Your task to perform on an android device: change keyboard looks Image 0: 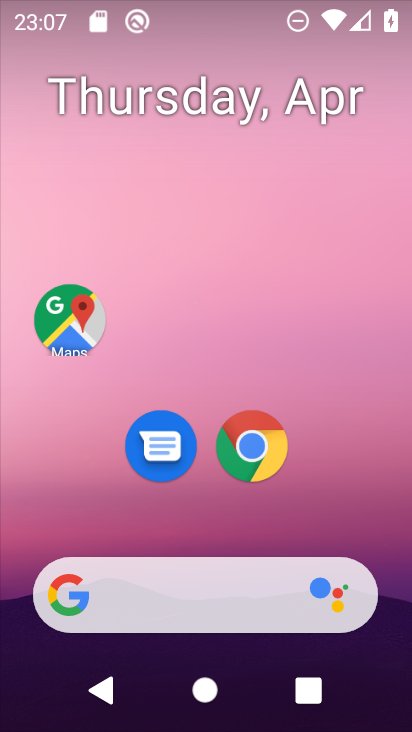
Step 0: drag from (204, 507) to (240, 164)
Your task to perform on an android device: change keyboard looks Image 1: 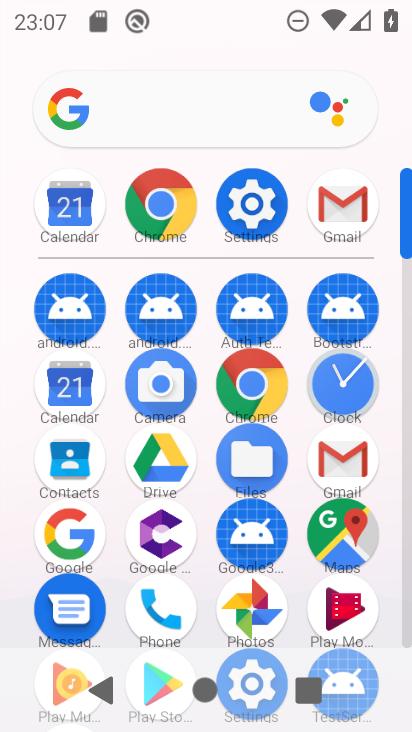
Step 1: click (266, 206)
Your task to perform on an android device: change keyboard looks Image 2: 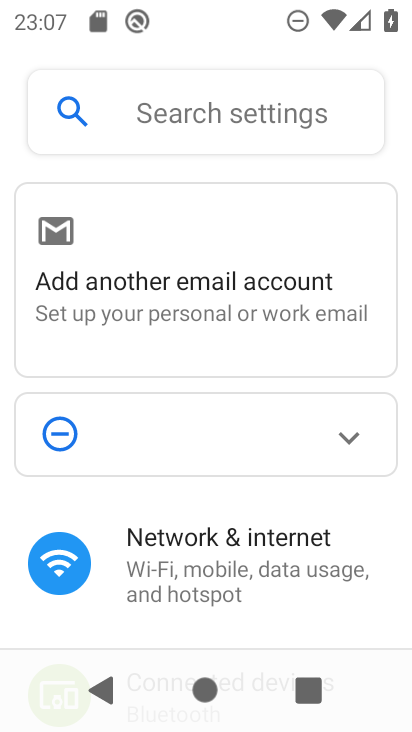
Step 2: drag from (220, 599) to (225, 136)
Your task to perform on an android device: change keyboard looks Image 3: 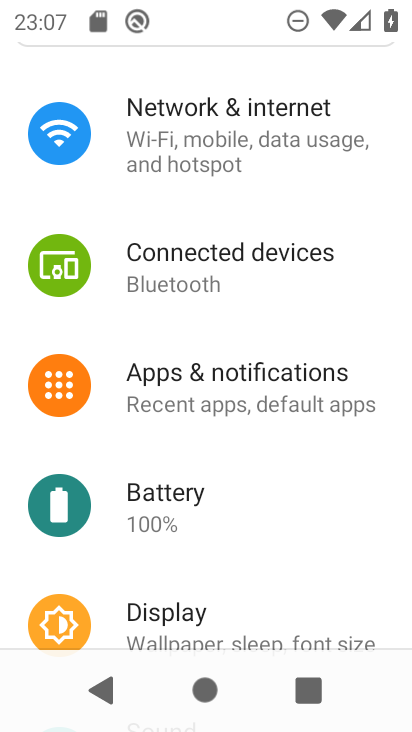
Step 3: drag from (207, 595) to (237, 76)
Your task to perform on an android device: change keyboard looks Image 4: 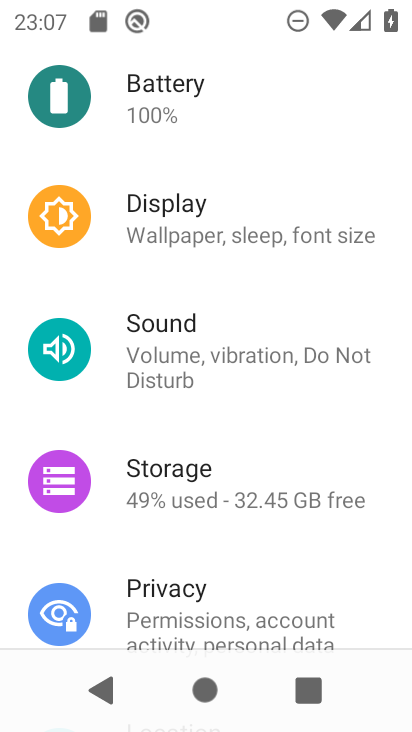
Step 4: drag from (207, 594) to (259, 22)
Your task to perform on an android device: change keyboard looks Image 5: 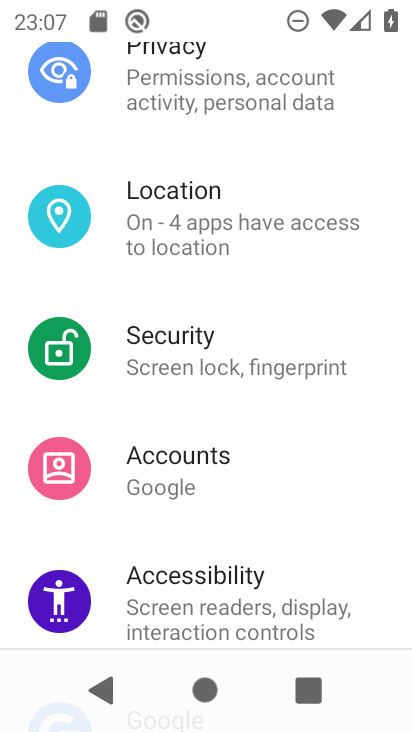
Step 5: drag from (177, 574) to (211, 99)
Your task to perform on an android device: change keyboard looks Image 6: 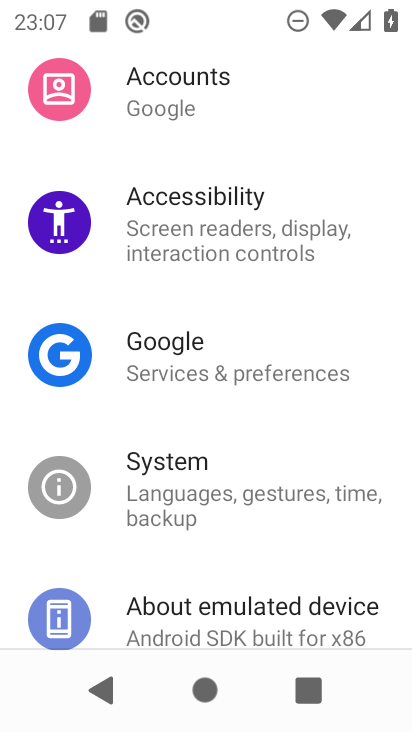
Step 6: drag from (229, 538) to (250, 205)
Your task to perform on an android device: change keyboard looks Image 7: 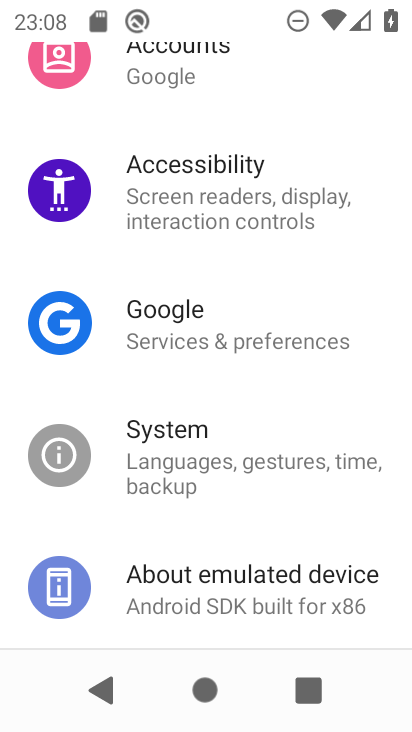
Step 7: click (201, 438)
Your task to perform on an android device: change keyboard looks Image 8: 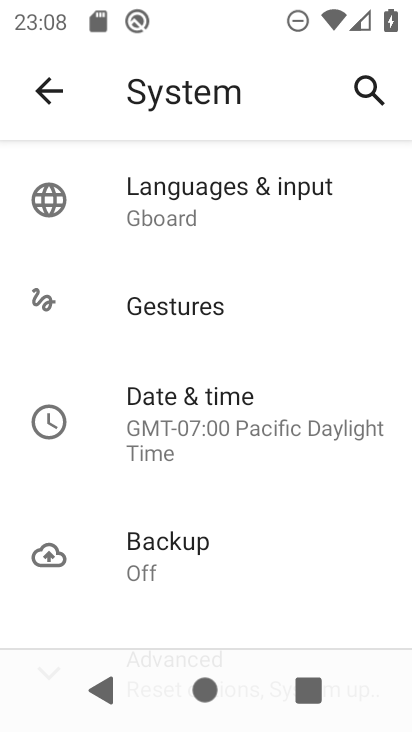
Step 8: click (194, 182)
Your task to perform on an android device: change keyboard looks Image 9: 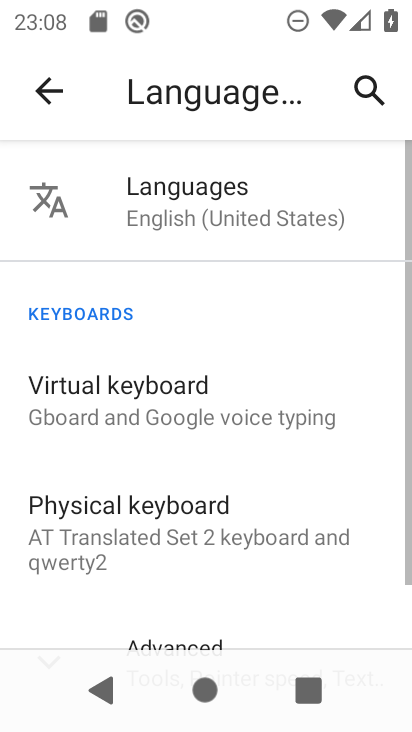
Step 9: click (220, 411)
Your task to perform on an android device: change keyboard looks Image 10: 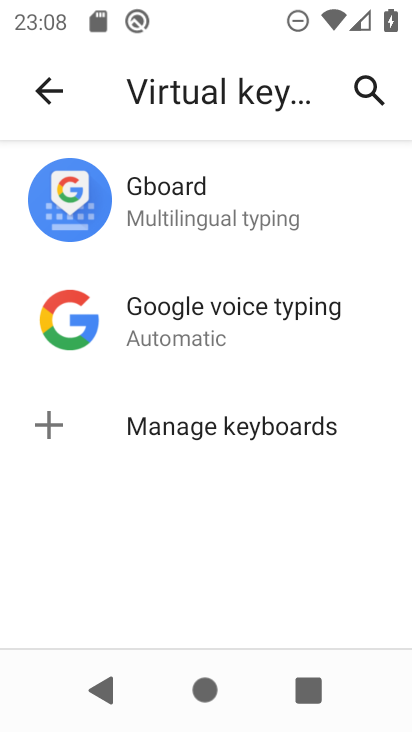
Step 10: click (198, 222)
Your task to perform on an android device: change keyboard looks Image 11: 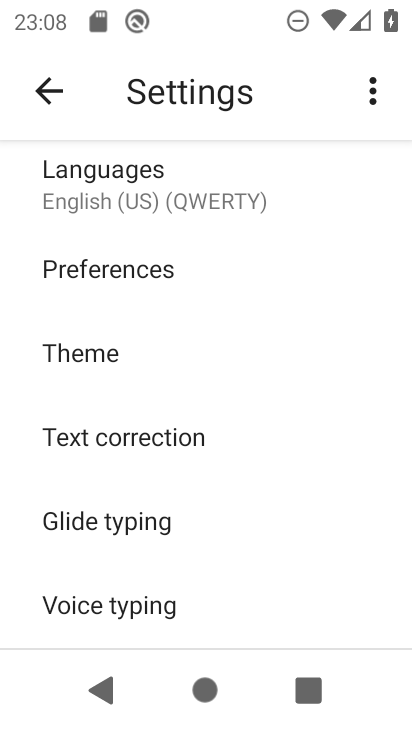
Step 11: click (200, 204)
Your task to perform on an android device: change keyboard looks Image 12: 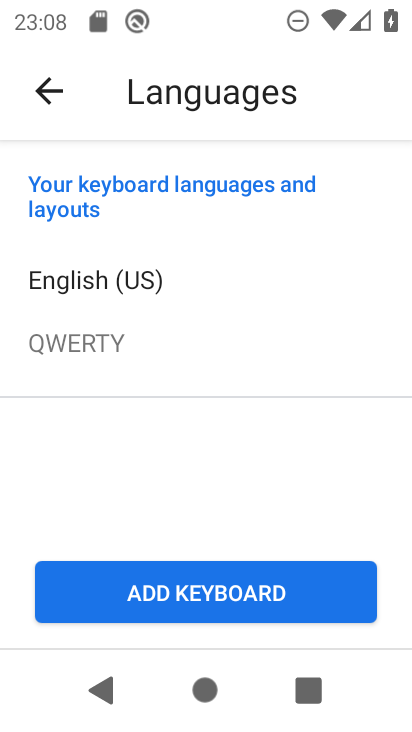
Step 12: click (41, 86)
Your task to perform on an android device: change keyboard looks Image 13: 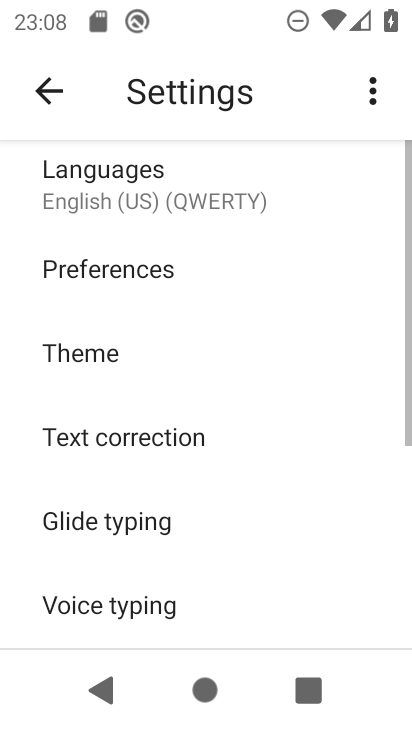
Step 13: click (173, 353)
Your task to perform on an android device: change keyboard looks Image 14: 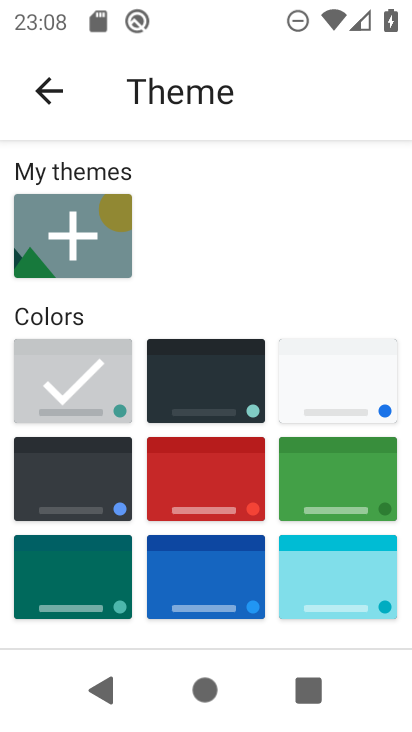
Step 14: click (187, 394)
Your task to perform on an android device: change keyboard looks Image 15: 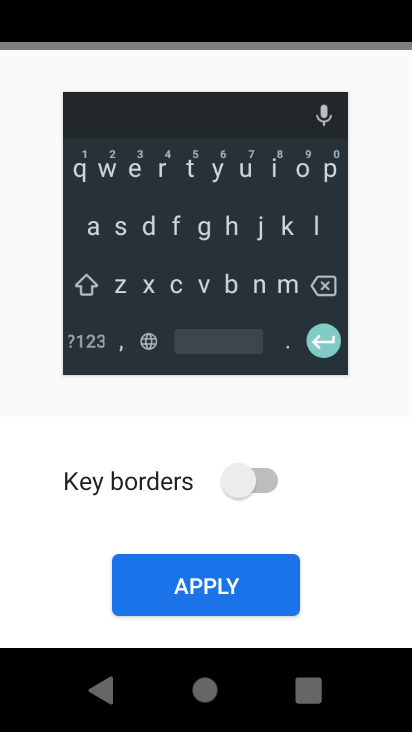
Step 15: click (184, 569)
Your task to perform on an android device: change keyboard looks Image 16: 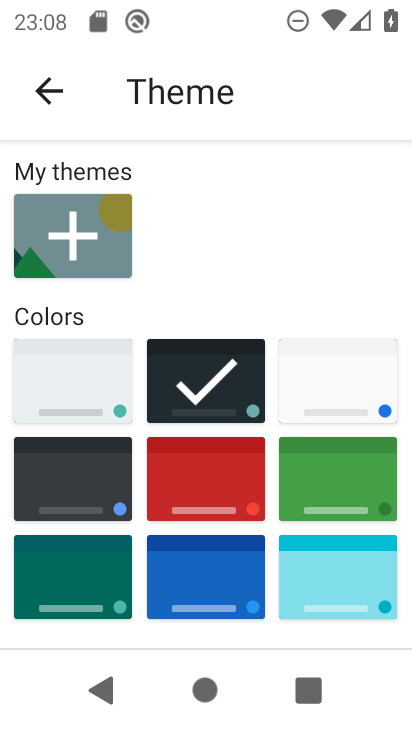
Step 16: task complete